Your task to perform on an android device: Go to privacy settings Image 0: 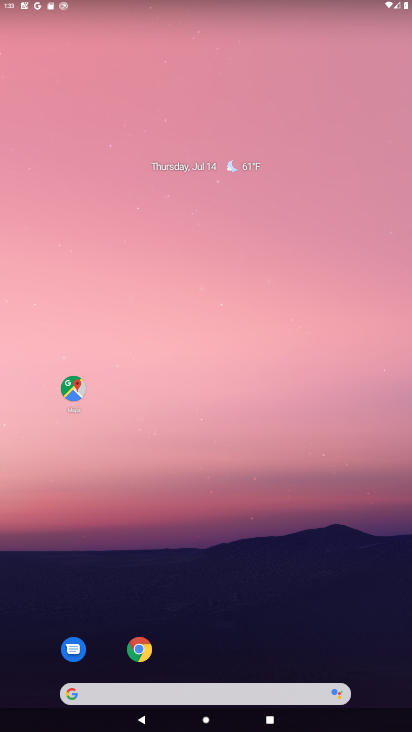
Step 0: drag from (288, 621) to (287, 2)
Your task to perform on an android device: Go to privacy settings Image 1: 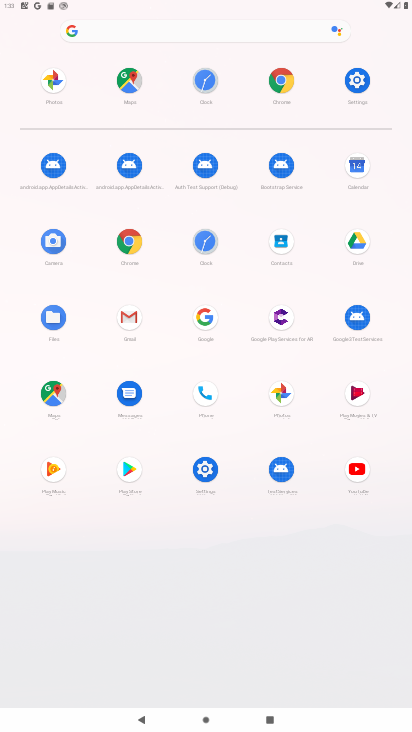
Step 1: click (355, 81)
Your task to perform on an android device: Go to privacy settings Image 2: 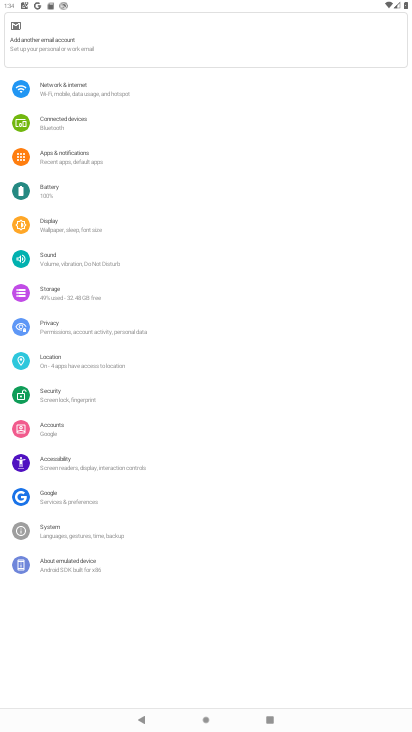
Step 2: click (75, 328)
Your task to perform on an android device: Go to privacy settings Image 3: 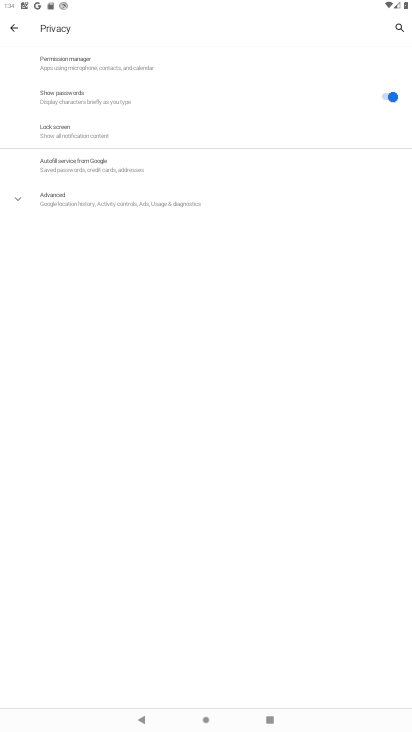
Step 3: task complete